Your task to perform on an android device: Go to calendar. Show me events next week Image 0: 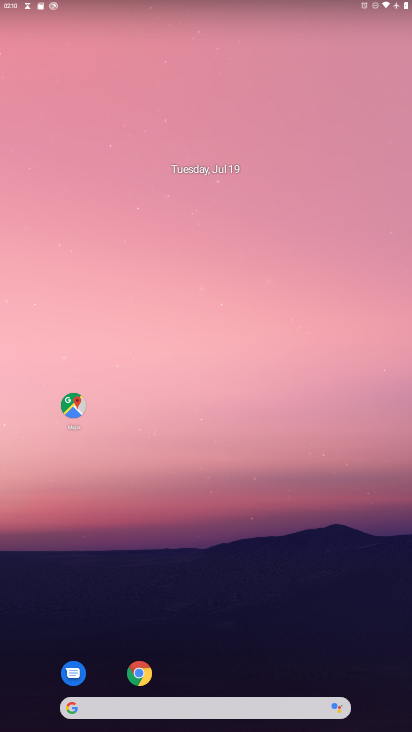
Step 0: drag from (205, 626) to (207, 141)
Your task to perform on an android device: Go to calendar. Show me events next week Image 1: 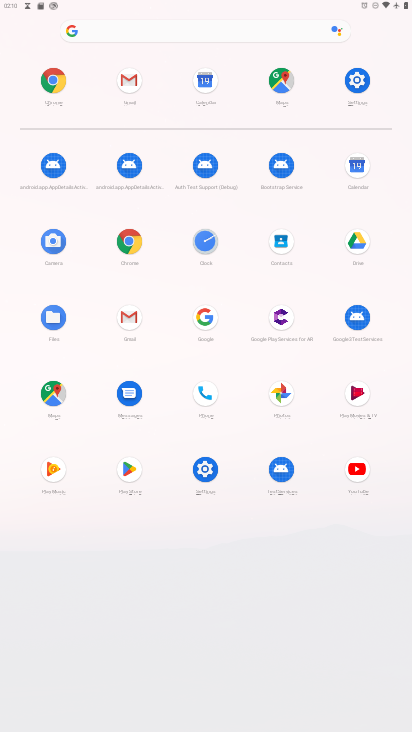
Step 1: click (359, 160)
Your task to perform on an android device: Go to calendar. Show me events next week Image 2: 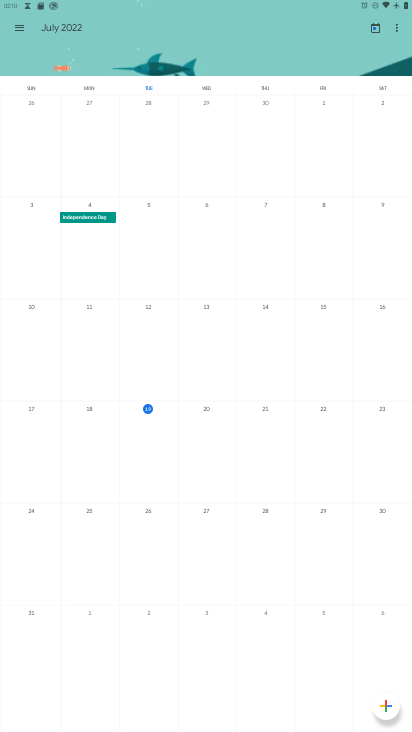
Step 2: click (15, 23)
Your task to perform on an android device: Go to calendar. Show me events next week Image 3: 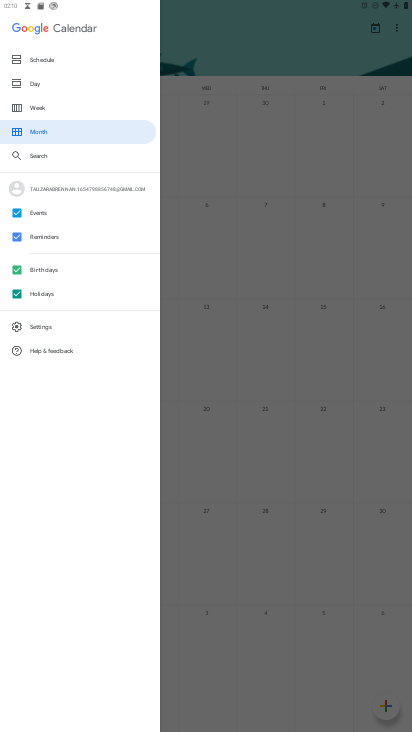
Step 3: click (50, 98)
Your task to perform on an android device: Go to calendar. Show me events next week Image 4: 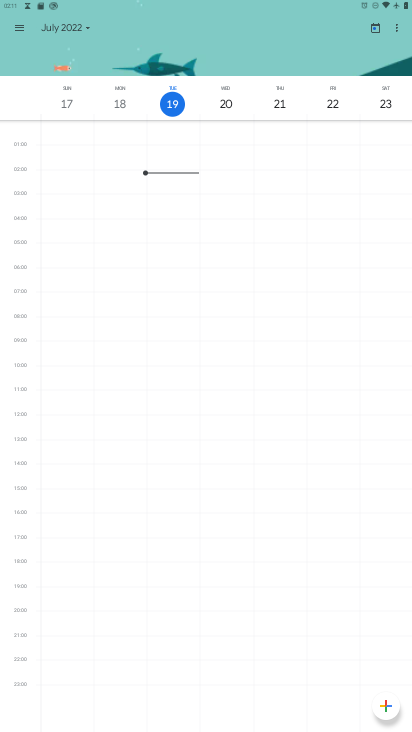
Step 4: task complete